Your task to perform on an android device: Open calendar and show me the third week of next month Image 0: 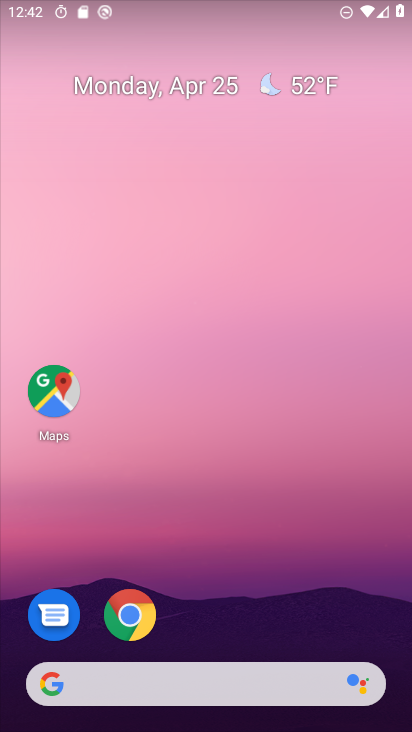
Step 0: drag from (189, 639) to (392, 468)
Your task to perform on an android device: Open calendar and show me the third week of next month Image 1: 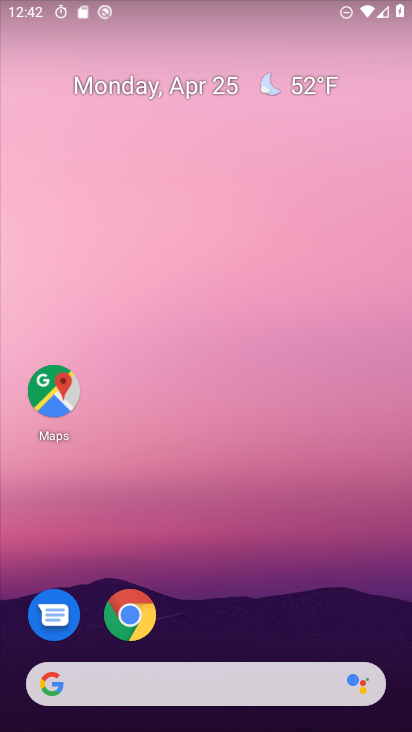
Step 1: drag from (192, 666) to (96, 12)
Your task to perform on an android device: Open calendar and show me the third week of next month Image 2: 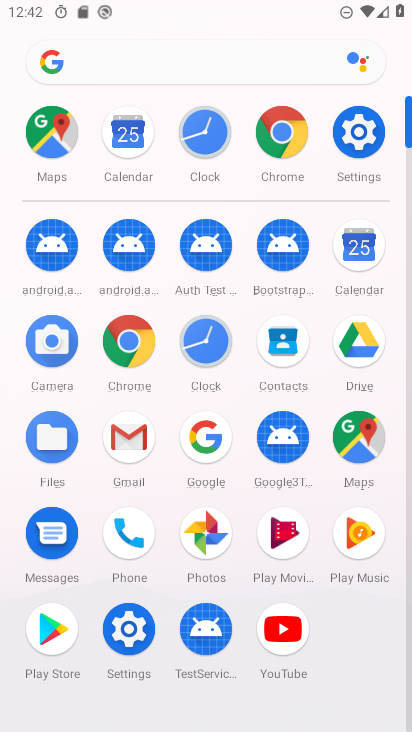
Step 2: click (361, 251)
Your task to perform on an android device: Open calendar and show me the third week of next month Image 3: 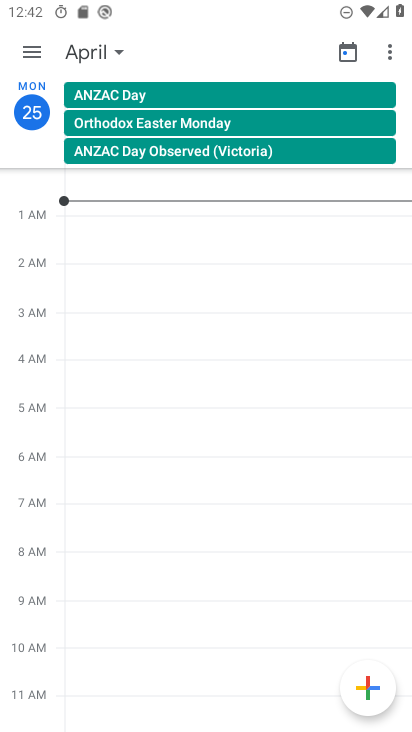
Step 3: click (20, 40)
Your task to perform on an android device: Open calendar and show me the third week of next month Image 4: 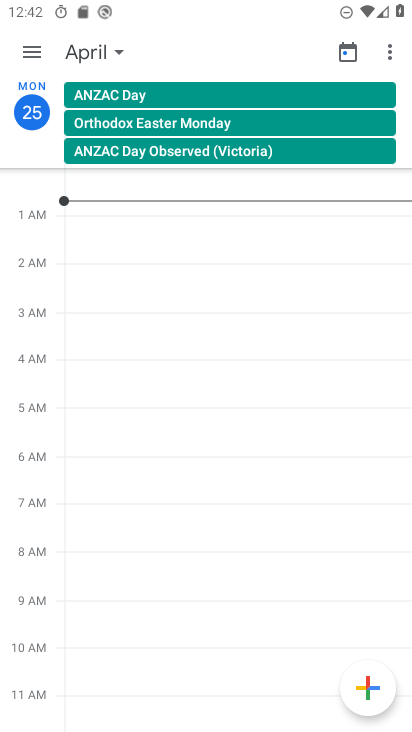
Step 4: click (22, 49)
Your task to perform on an android device: Open calendar and show me the third week of next month Image 5: 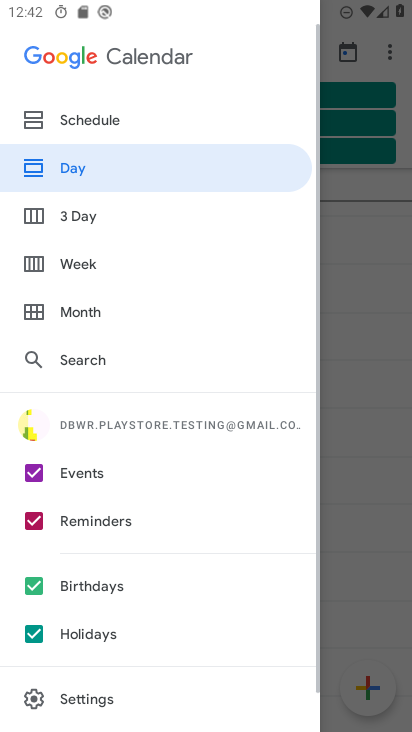
Step 5: click (81, 253)
Your task to perform on an android device: Open calendar and show me the third week of next month Image 6: 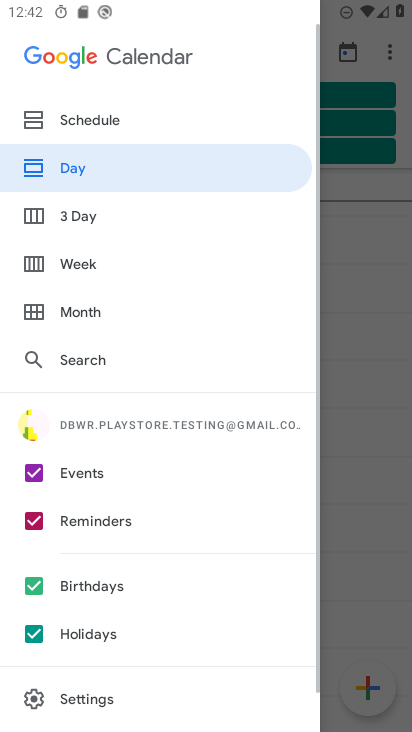
Step 6: click (74, 268)
Your task to perform on an android device: Open calendar and show me the third week of next month Image 7: 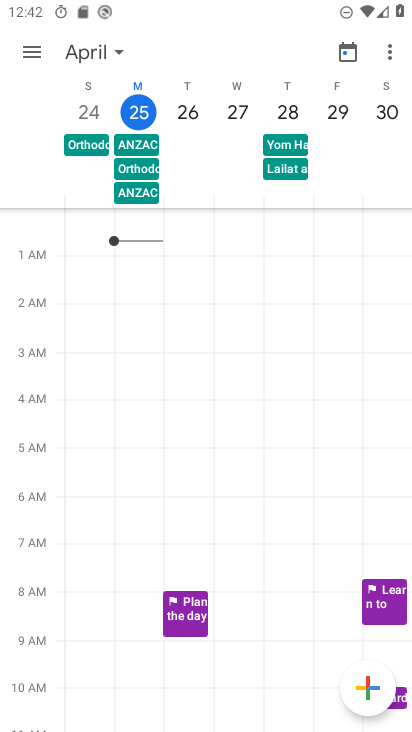
Step 7: task complete